Your task to perform on an android device: Open the calendar and show me this week's events? Image 0: 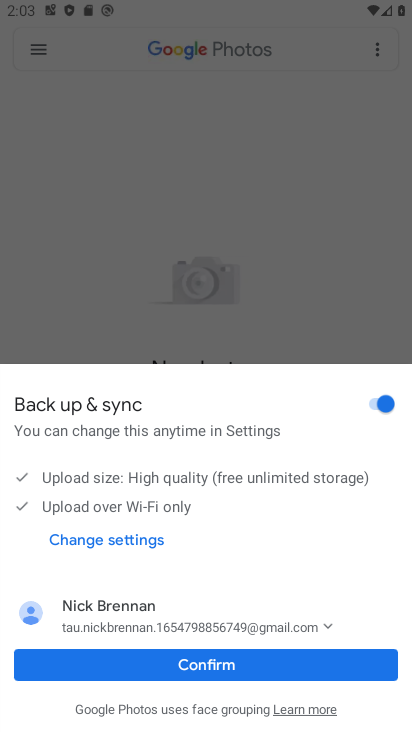
Step 0: press home button
Your task to perform on an android device: Open the calendar and show me this week's events? Image 1: 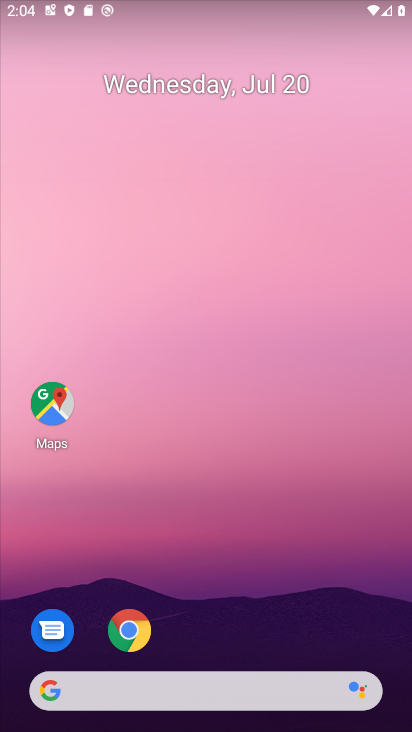
Step 1: drag from (342, 616) to (386, 79)
Your task to perform on an android device: Open the calendar and show me this week's events? Image 2: 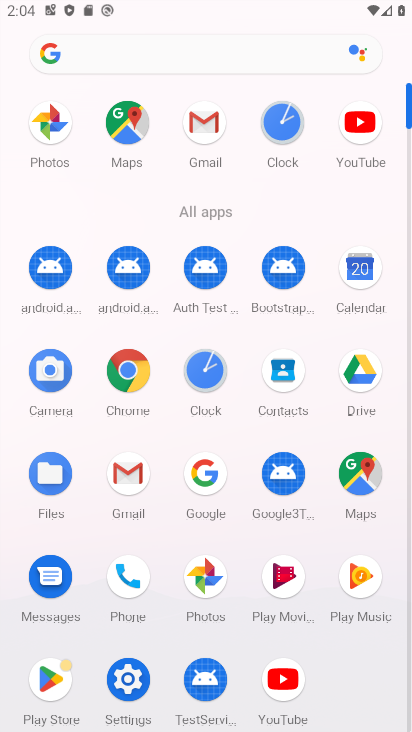
Step 2: click (362, 274)
Your task to perform on an android device: Open the calendar and show me this week's events? Image 3: 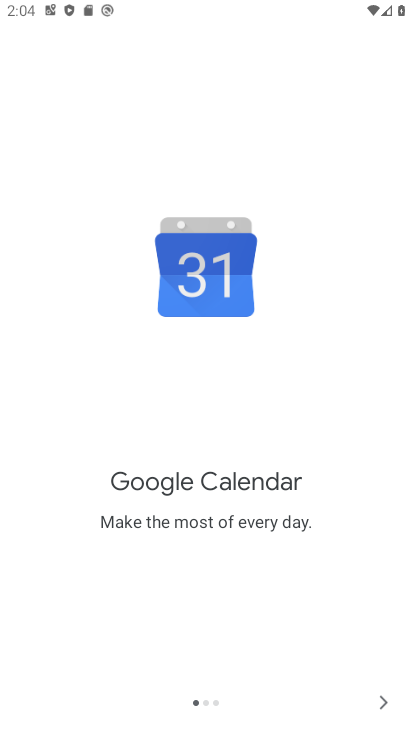
Step 3: click (381, 706)
Your task to perform on an android device: Open the calendar and show me this week's events? Image 4: 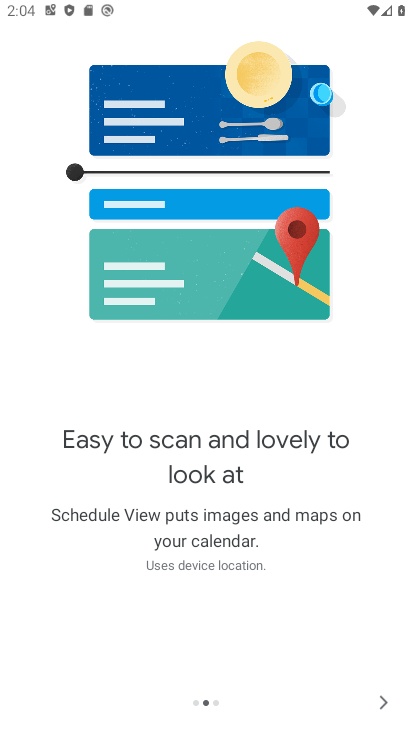
Step 4: click (385, 699)
Your task to perform on an android device: Open the calendar and show me this week's events? Image 5: 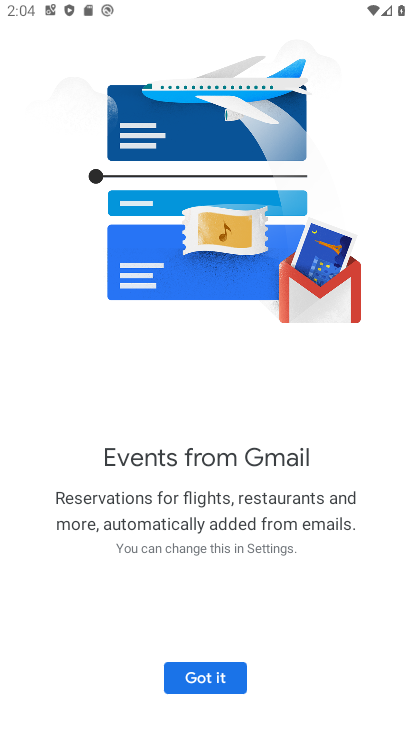
Step 5: click (207, 679)
Your task to perform on an android device: Open the calendar and show me this week's events? Image 6: 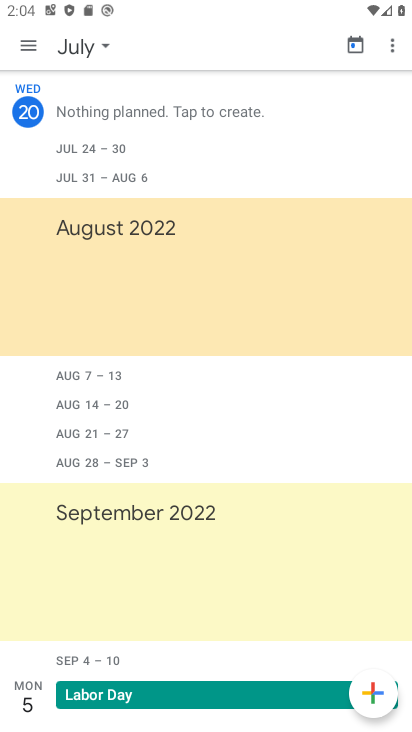
Step 6: task complete